Your task to perform on an android device: Open the stopwatch Image 0: 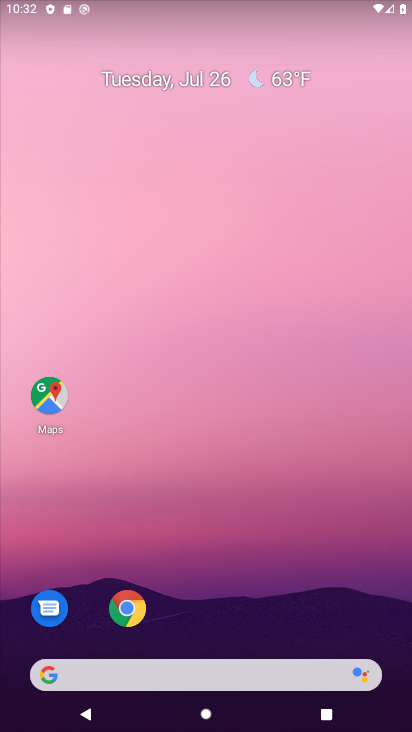
Step 0: press home button
Your task to perform on an android device: Open the stopwatch Image 1: 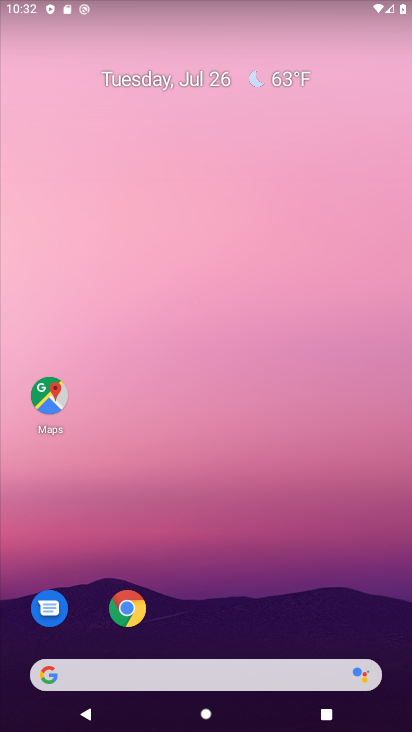
Step 1: drag from (217, 586) to (190, 94)
Your task to perform on an android device: Open the stopwatch Image 2: 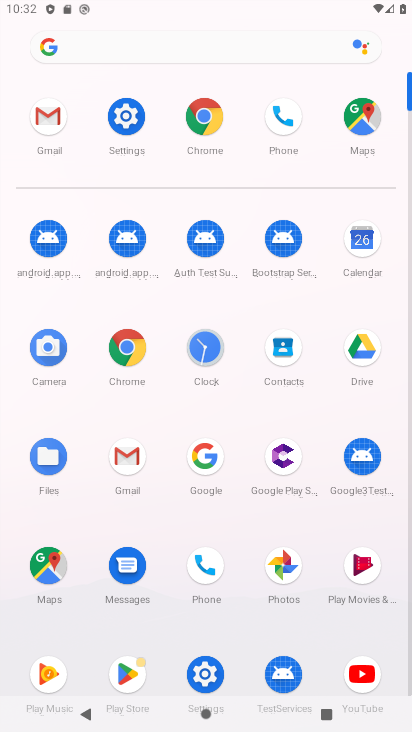
Step 2: click (204, 358)
Your task to perform on an android device: Open the stopwatch Image 3: 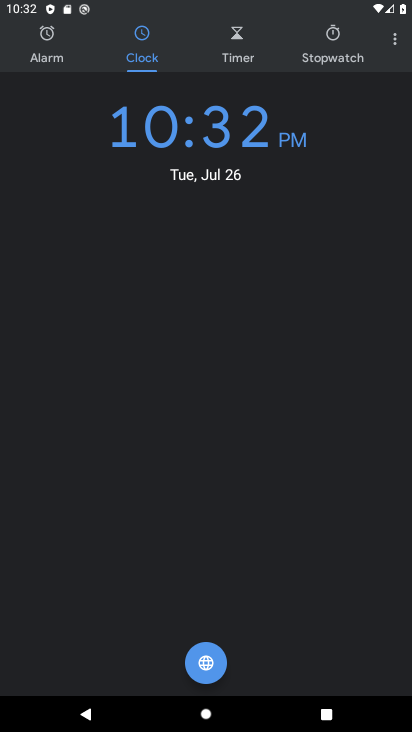
Step 3: click (331, 42)
Your task to perform on an android device: Open the stopwatch Image 4: 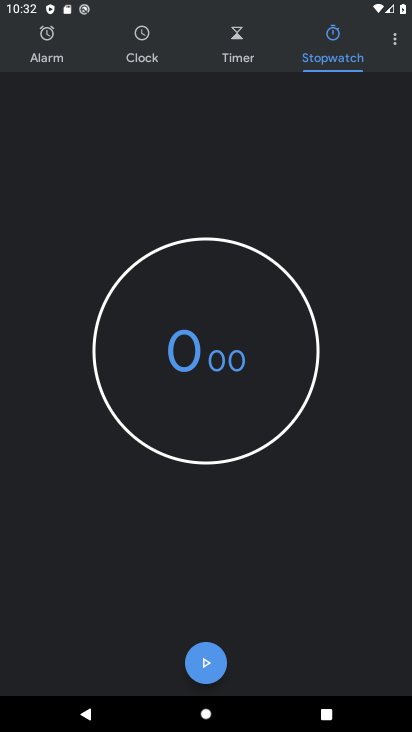
Step 4: task complete